Your task to perform on an android device: allow notifications from all sites in the chrome app Image 0: 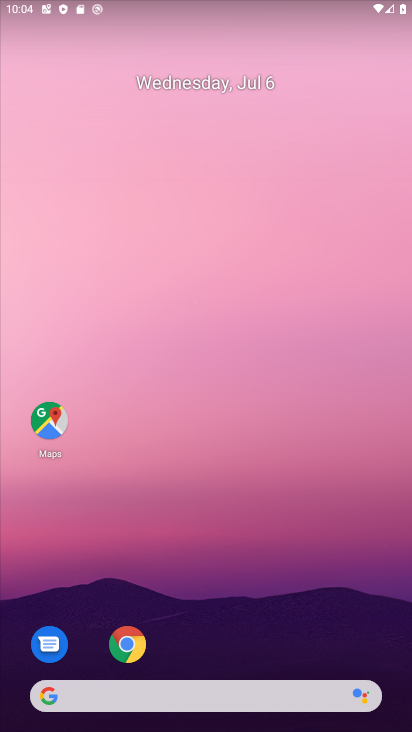
Step 0: click (252, 576)
Your task to perform on an android device: allow notifications from all sites in the chrome app Image 1: 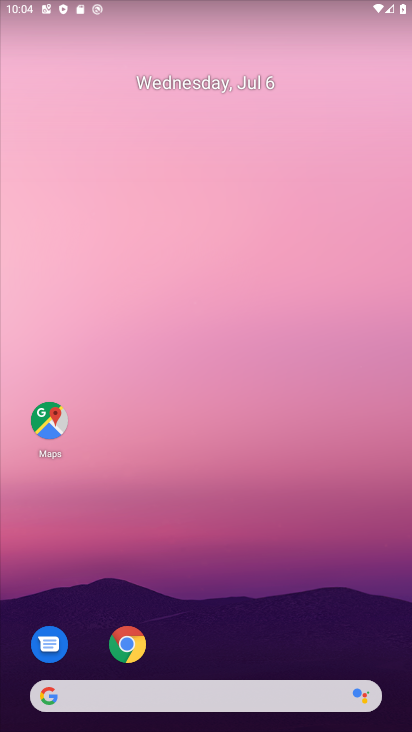
Step 1: click (226, 728)
Your task to perform on an android device: allow notifications from all sites in the chrome app Image 2: 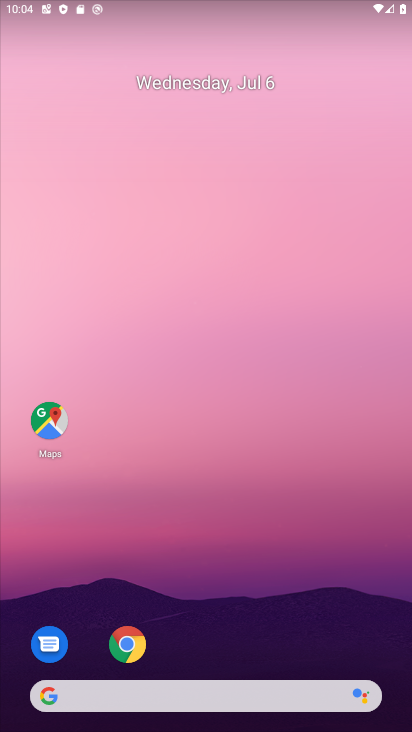
Step 2: drag from (283, 694) to (94, 160)
Your task to perform on an android device: allow notifications from all sites in the chrome app Image 3: 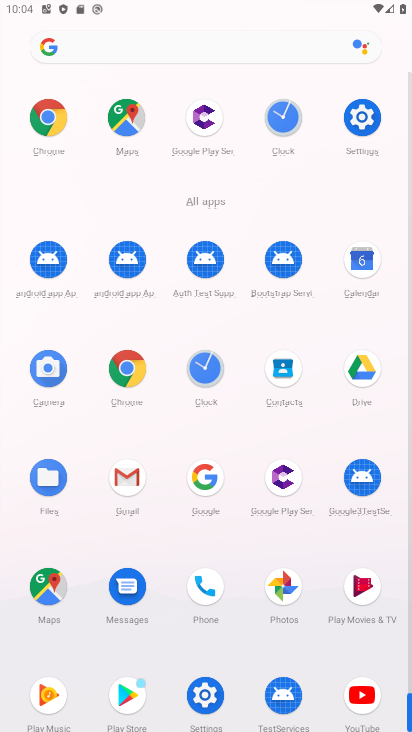
Step 3: click (125, 368)
Your task to perform on an android device: allow notifications from all sites in the chrome app Image 4: 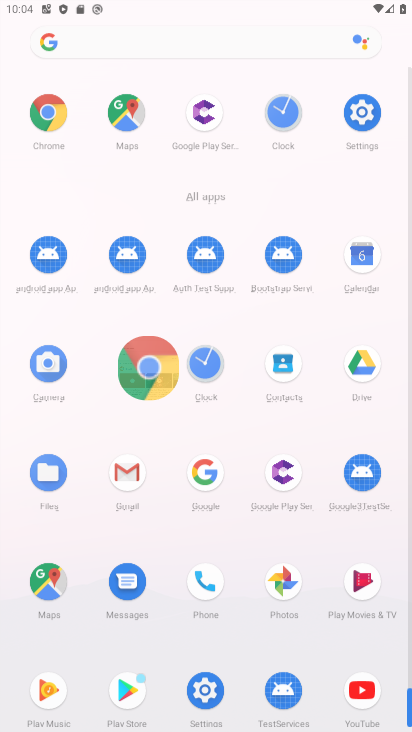
Step 4: click (123, 367)
Your task to perform on an android device: allow notifications from all sites in the chrome app Image 5: 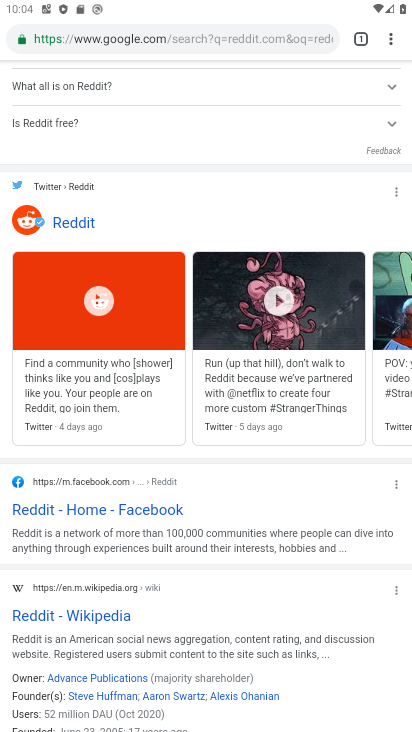
Step 5: drag from (391, 47) to (237, 435)
Your task to perform on an android device: allow notifications from all sites in the chrome app Image 6: 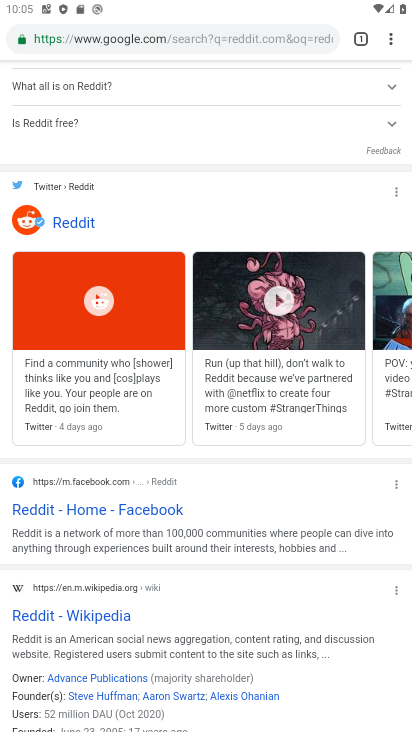
Step 6: click (230, 431)
Your task to perform on an android device: allow notifications from all sites in the chrome app Image 7: 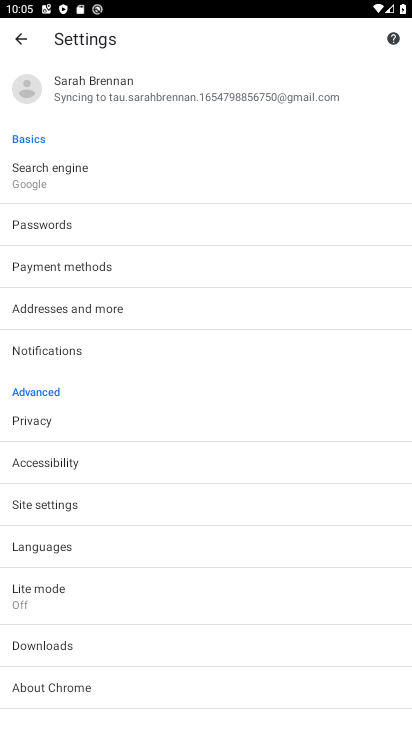
Step 7: click (46, 502)
Your task to perform on an android device: allow notifications from all sites in the chrome app Image 8: 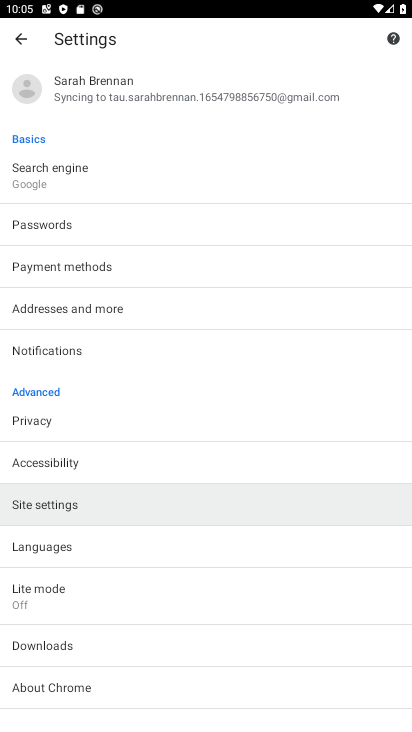
Step 8: click (45, 501)
Your task to perform on an android device: allow notifications from all sites in the chrome app Image 9: 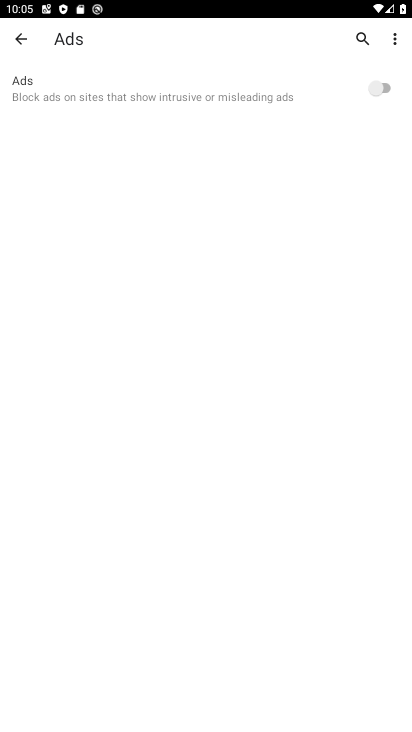
Step 9: click (17, 44)
Your task to perform on an android device: allow notifications from all sites in the chrome app Image 10: 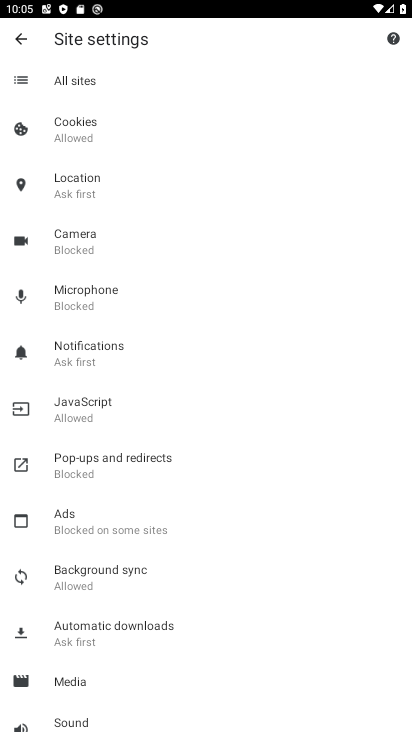
Step 10: drag from (76, 283) to (96, 348)
Your task to perform on an android device: allow notifications from all sites in the chrome app Image 11: 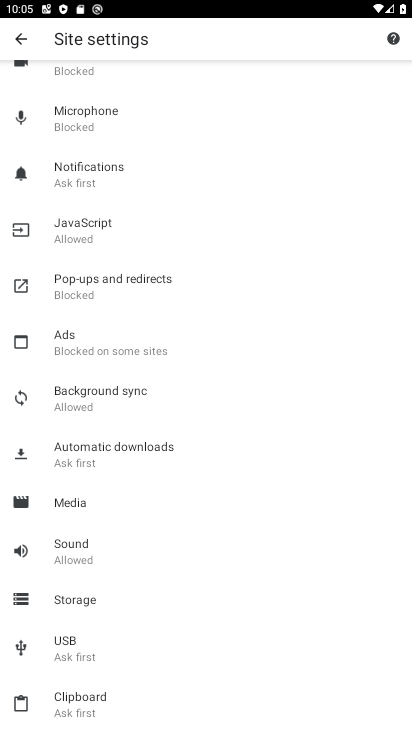
Step 11: click (74, 166)
Your task to perform on an android device: allow notifications from all sites in the chrome app Image 12: 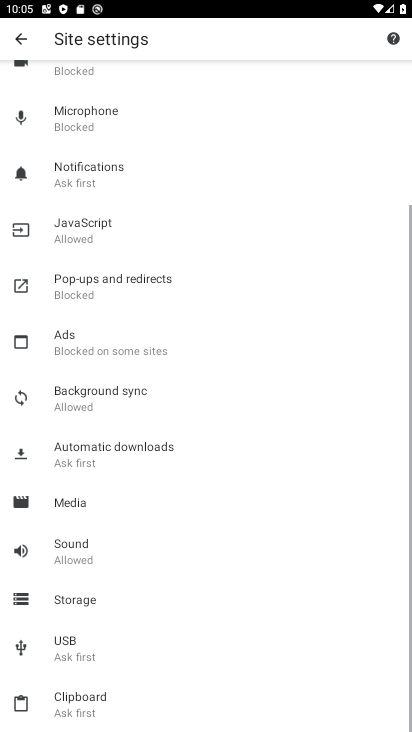
Step 12: click (74, 168)
Your task to perform on an android device: allow notifications from all sites in the chrome app Image 13: 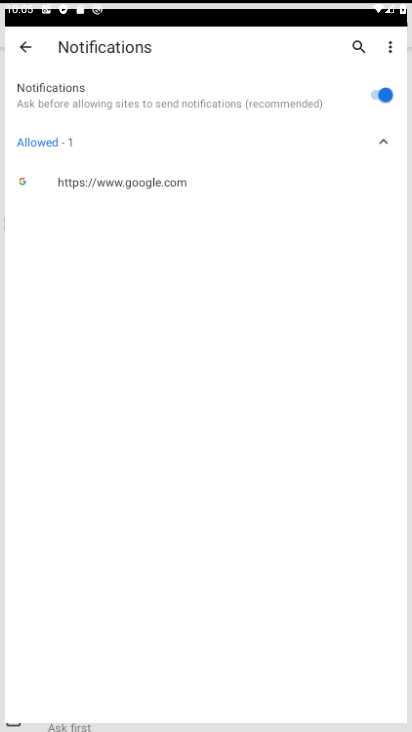
Step 13: click (77, 170)
Your task to perform on an android device: allow notifications from all sites in the chrome app Image 14: 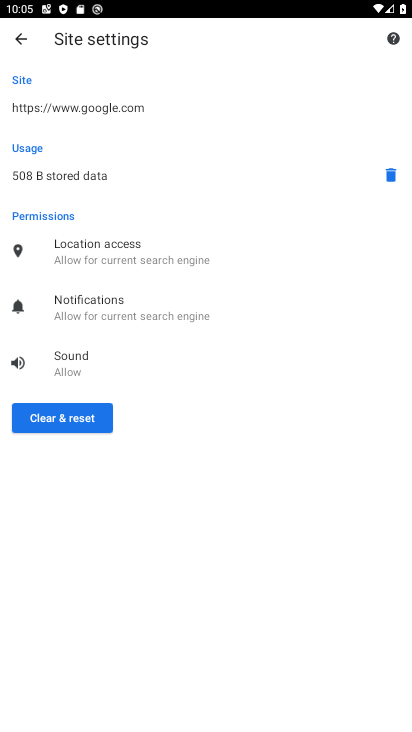
Step 14: click (87, 300)
Your task to perform on an android device: allow notifications from all sites in the chrome app Image 15: 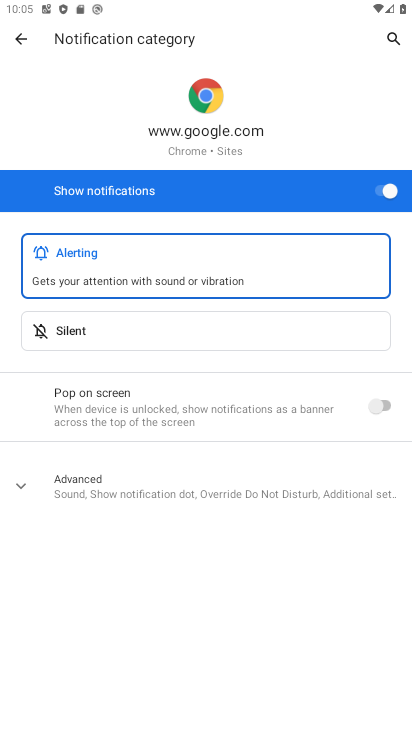
Step 15: click (371, 392)
Your task to perform on an android device: allow notifications from all sites in the chrome app Image 16: 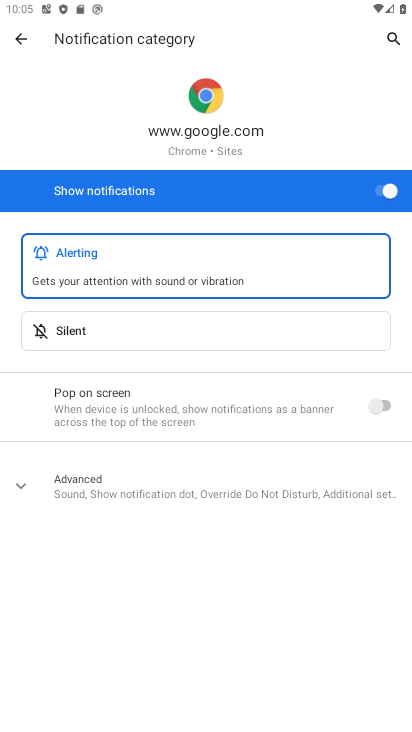
Step 16: task complete